Your task to perform on an android device: open the mobile data screen to see how much data has been used Image 0: 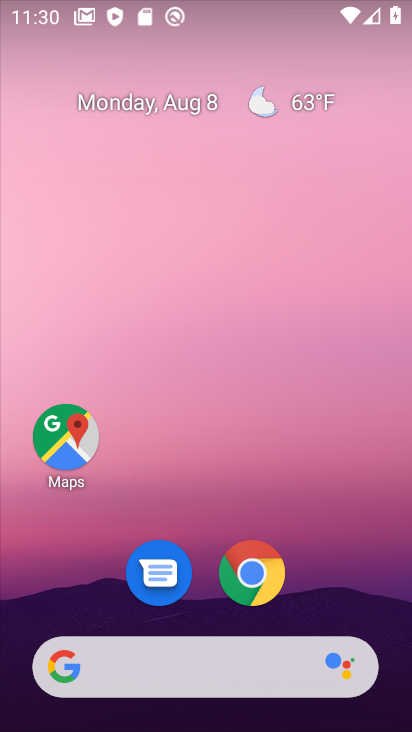
Step 0: drag from (205, 587) to (205, 218)
Your task to perform on an android device: open the mobile data screen to see how much data has been used Image 1: 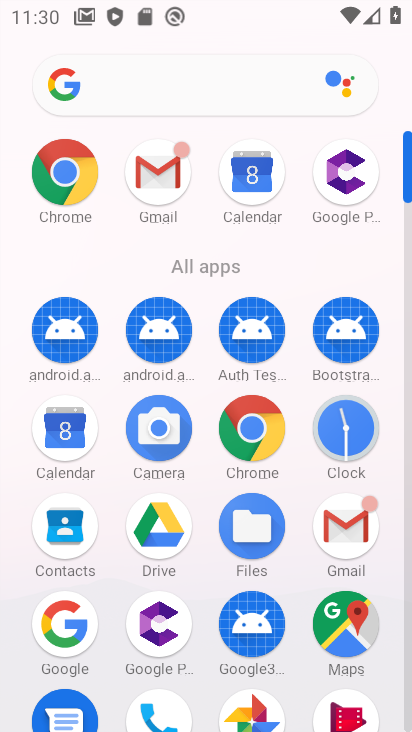
Step 1: drag from (208, 687) to (196, 309)
Your task to perform on an android device: open the mobile data screen to see how much data has been used Image 2: 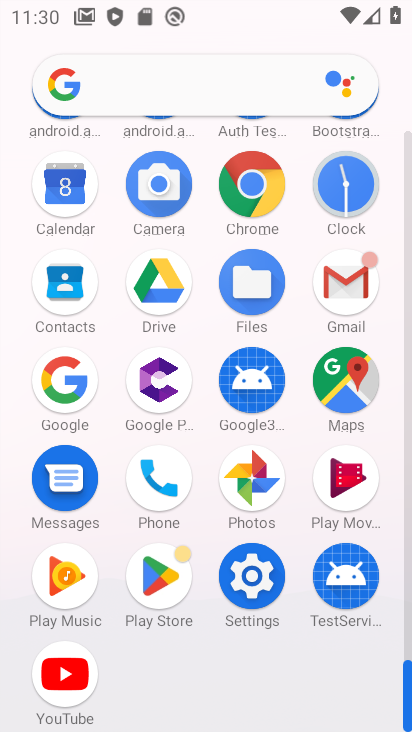
Step 2: click (261, 583)
Your task to perform on an android device: open the mobile data screen to see how much data has been used Image 3: 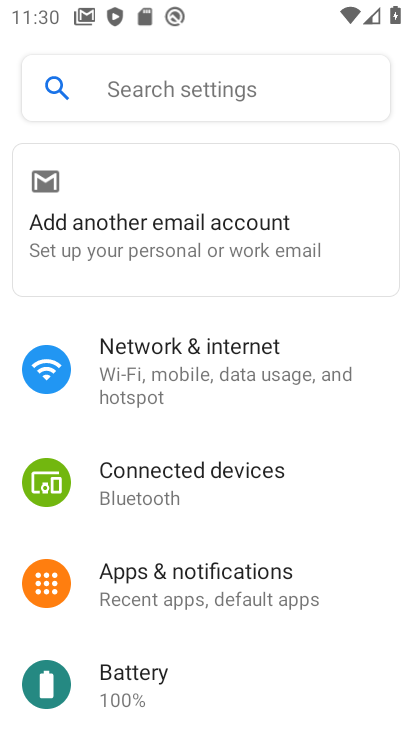
Step 3: click (207, 397)
Your task to perform on an android device: open the mobile data screen to see how much data has been used Image 4: 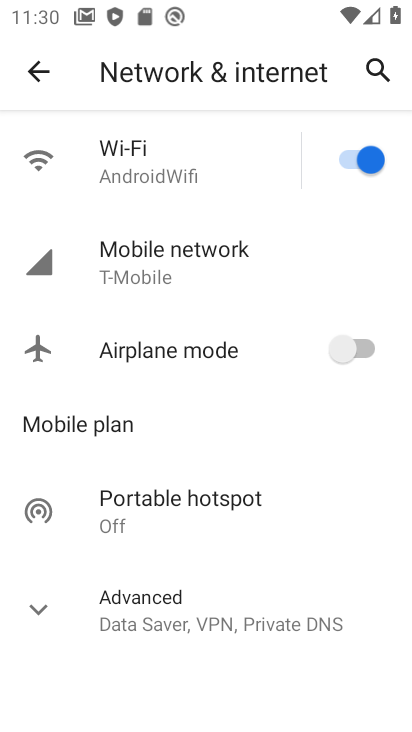
Step 4: click (149, 614)
Your task to perform on an android device: open the mobile data screen to see how much data has been used Image 5: 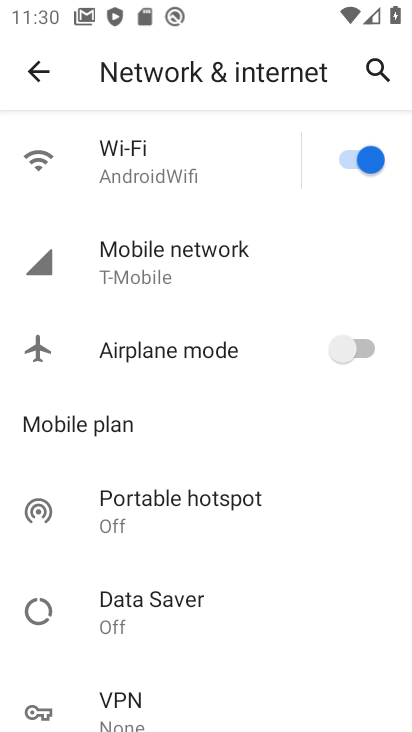
Step 5: click (170, 269)
Your task to perform on an android device: open the mobile data screen to see how much data has been used Image 6: 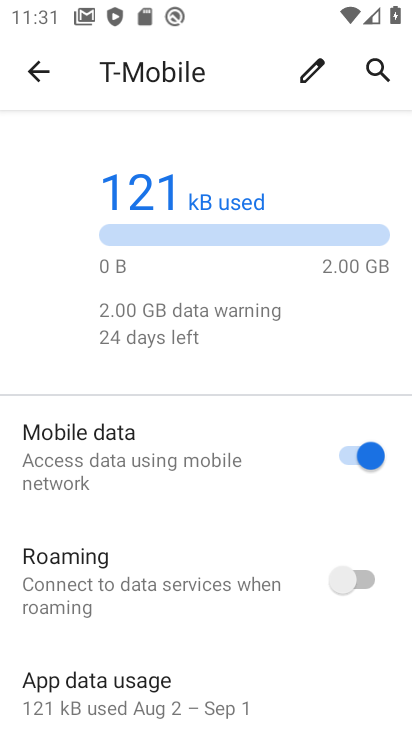
Step 6: task complete